Your task to perform on an android device: open app "Facebook" (install if not already installed) Image 0: 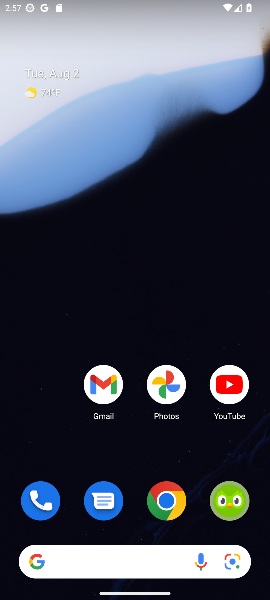
Step 0: drag from (128, 403) to (153, 38)
Your task to perform on an android device: open app "Facebook" (install if not already installed) Image 1: 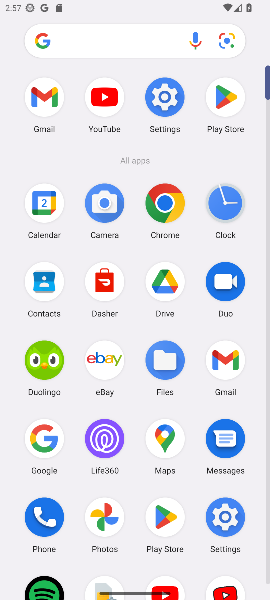
Step 1: click (219, 109)
Your task to perform on an android device: open app "Facebook" (install if not already installed) Image 2: 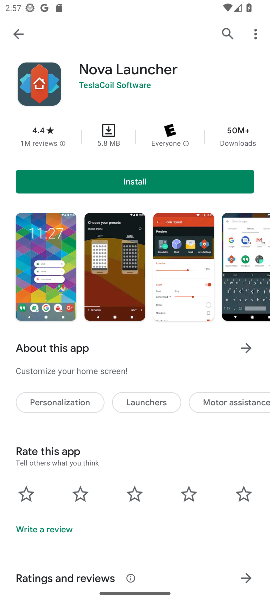
Step 2: click (224, 33)
Your task to perform on an android device: open app "Facebook" (install if not already installed) Image 3: 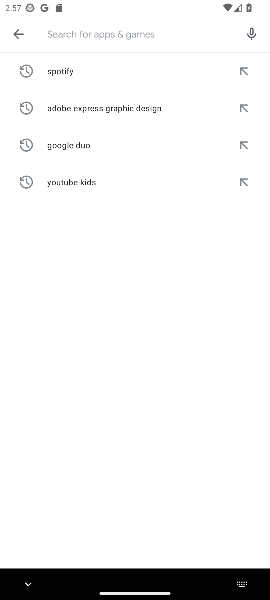
Step 3: type "Facebook"
Your task to perform on an android device: open app "Facebook" (install if not already installed) Image 4: 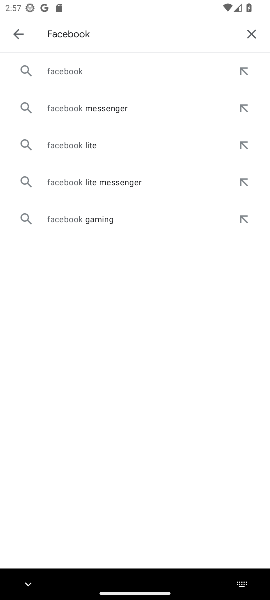
Step 4: click (72, 67)
Your task to perform on an android device: open app "Facebook" (install if not already installed) Image 5: 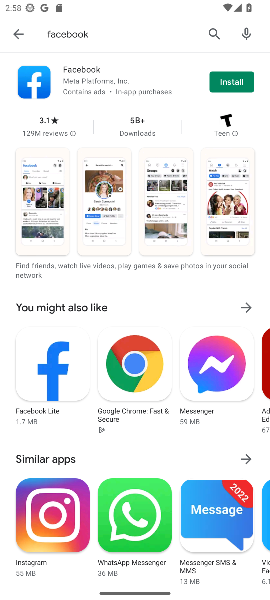
Step 5: click (241, 88)
Your task to perform on an android device: open app "Facebook" (install if not already installed) Image 6: 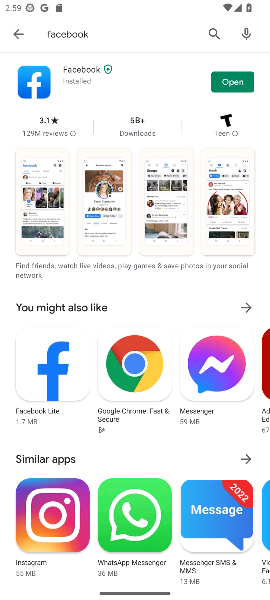
Step 6: click (241, 88)
Your task to perform on an android device: open app "Facebook" (install if not already installed) Image 7: 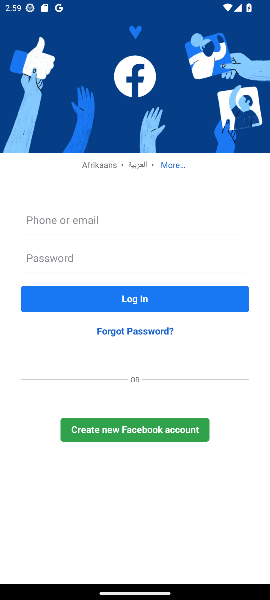
Step 7: task complete